Your task to perform on an android device: change alarm snooze length Image 0: 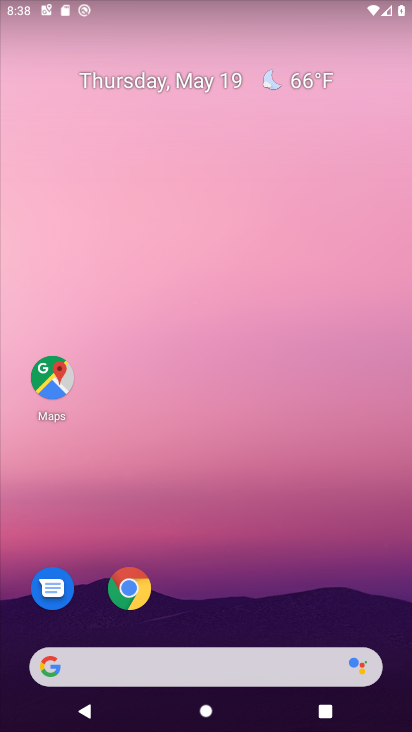
Step 0: drag from (382, 595) to (357, 235)
Your task to perform on an android device: change alarm snooze length Image 1: 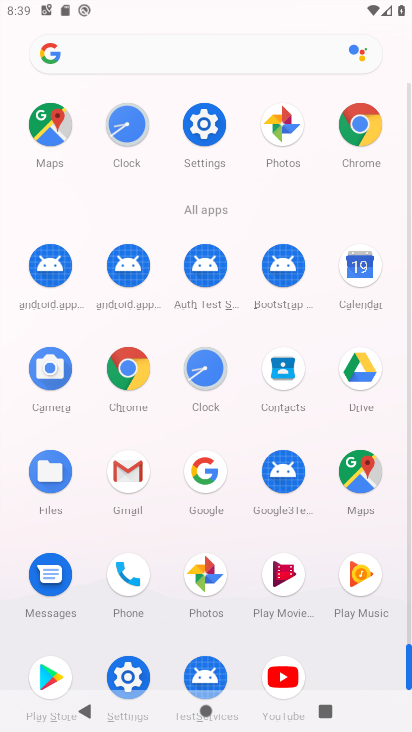
Step 1: click (213, 363)
Your task to perform on an android device: change alarm snooze length Image 2: 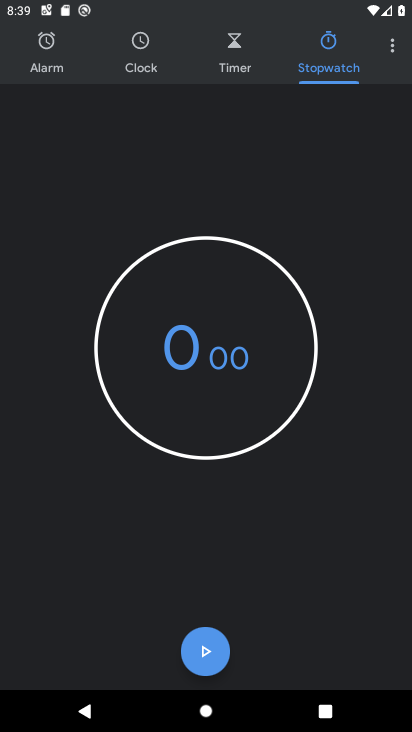
Step 2: click (394, 58)
Your task to perform on an android device: change alarm snooze length Image 3: 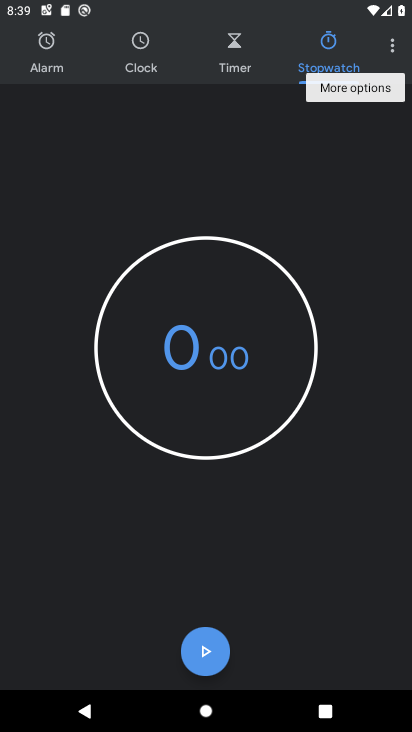
Step 3: click (394, 58)
Your task to perform on an android device: change alarm snooze length Image 4: 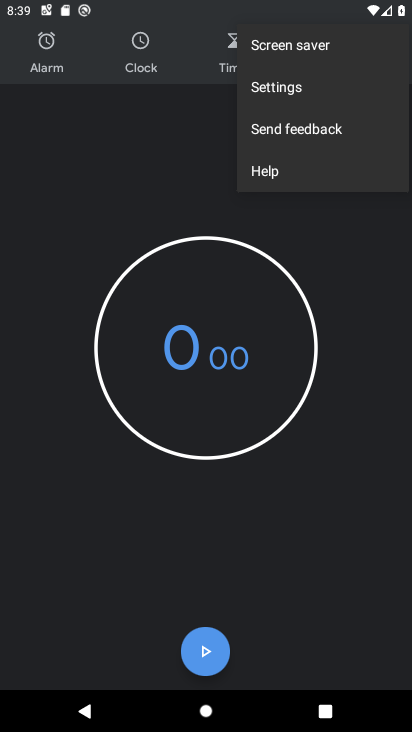
Step 4: click (327, 89)
Your task to perform on an android device: change alarm snooze length Image 5: 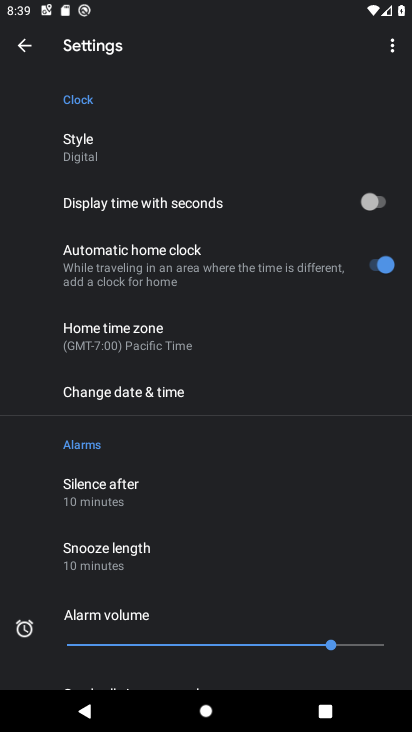
Step 5: drag from (334, 558) to (321, 422)
Your task to perform on an android device: change alarm snooze length Image 6: 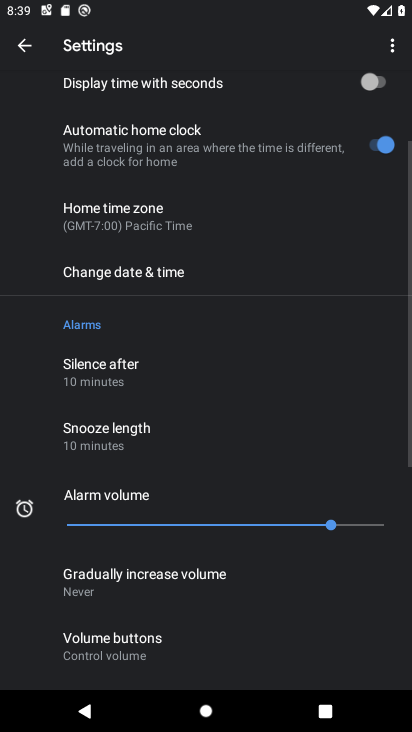
Step 6: drag from (309, 584) to (315, 431)
Your task to perform on an android device: change alarm snooze length Image 7: 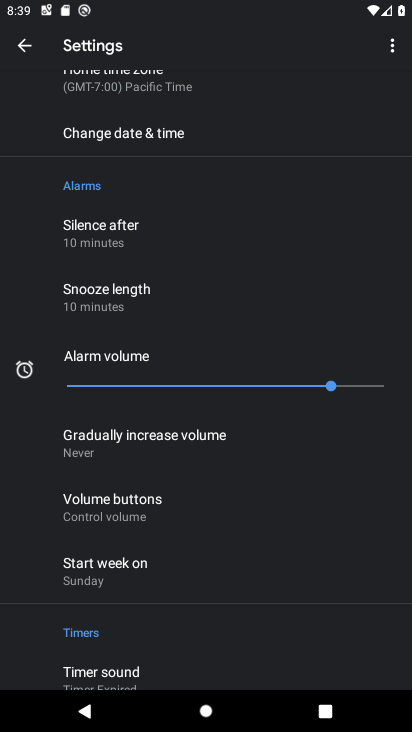
Step 7: drag from (323, 591) to (323, 448)
Your task to perform on an android device: change alarm snooze length Image 8: 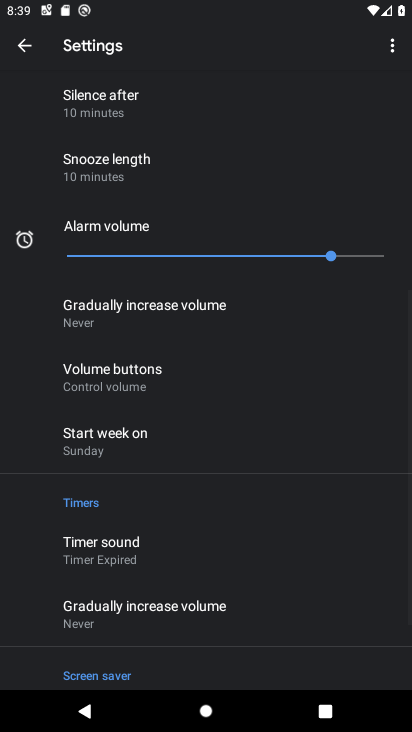
Step 8: drag from (319, 576) to (329, 375)
Your task to perform on an android device: change alarm snooze length Image 9: 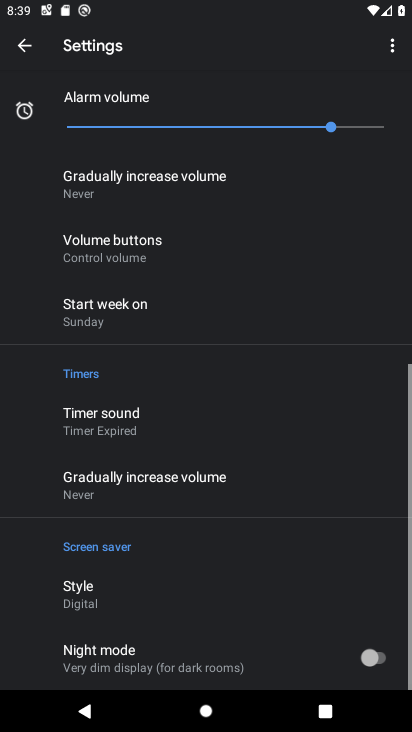
Step 9: drag from (335, 344) to (328, 457)
Your task to perform on an android device: change alarm snooze length Image 10: 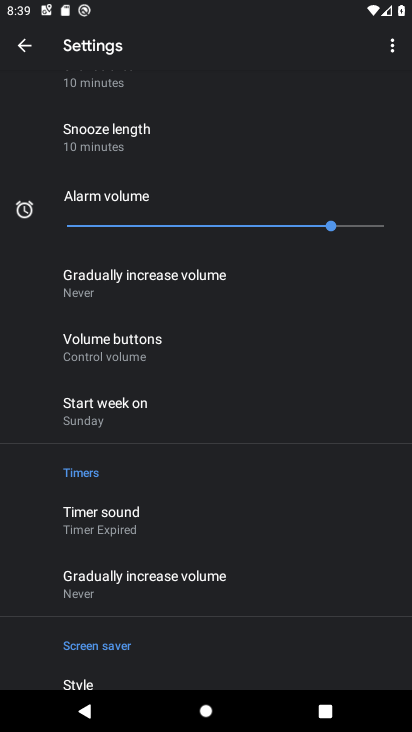
Step 10: drag from (341, 325) to (353, 403)
Your task to perform on an android device: change alarm snooze length Image 11: 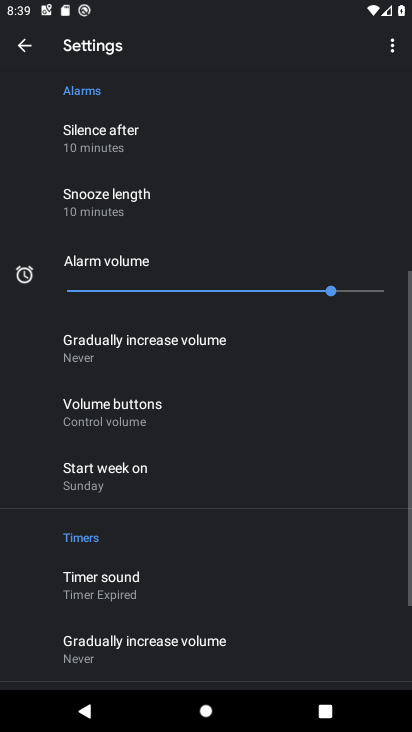
Step 11: drag from (371, 273) to (360, 363)
Your task to perform on an android device: change alarm snooze length Image 12: 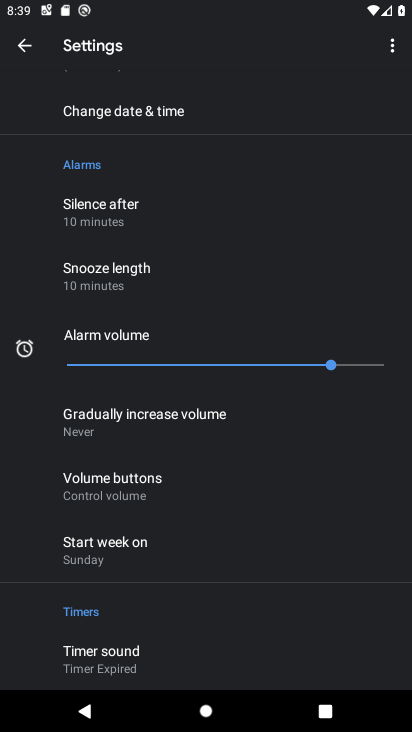
Step 12: drag from (361, 261) to (360, 352)
Your task to perform on an android device: change alarm snooze length Image 13: 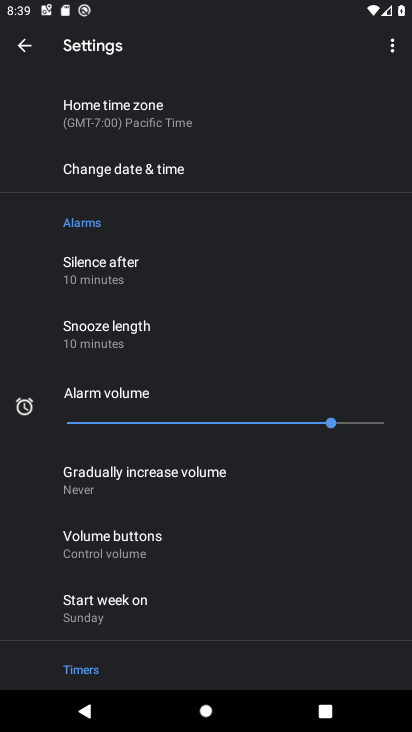
Step 13: drag from (355, 247) to (356, 381)
Your task to perform on an android device: change alarm snooze length Image 14: 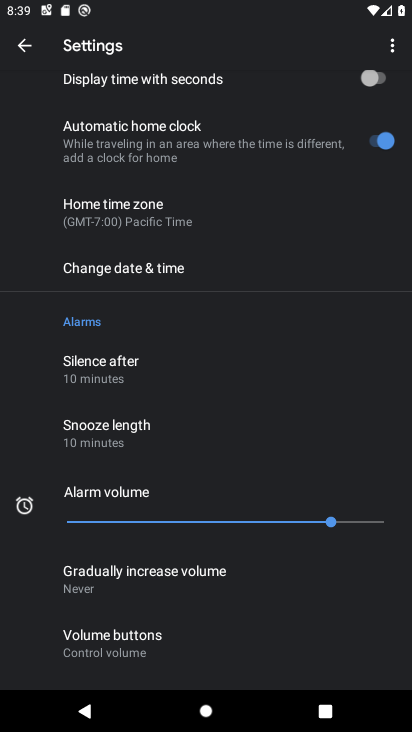
Step 14: click (129, 433)
Your task to perform on an android device: change alarm snooze length Image 15: 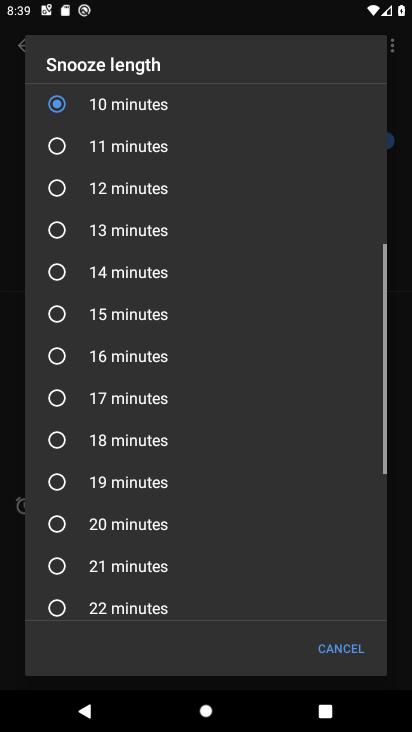
Step 15: click (127, 411)
Your task to perform on an android device: change alarm snooze length Image 16: 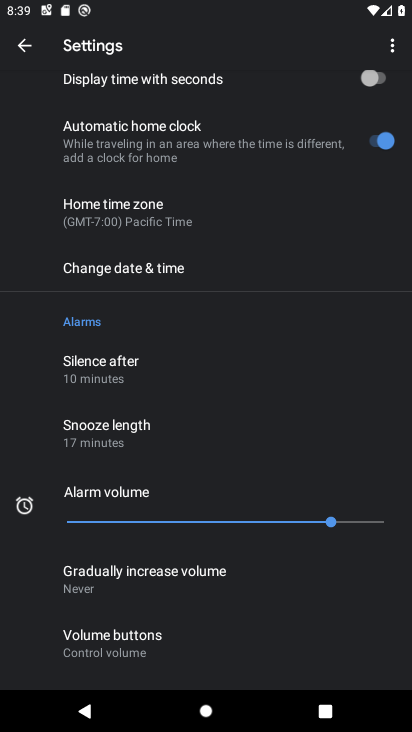
Step 16: task complete